Your task to perform on an android device: Open the web browser Image 0: 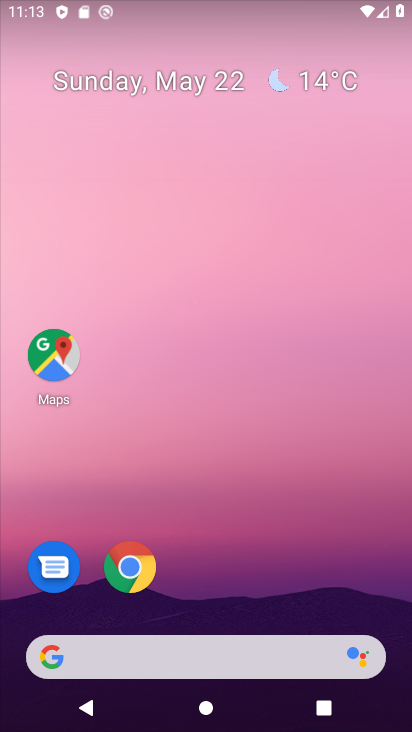
Step 0: click (126, 566)
Your task to perform on an android device: Open the web browser Image 1: 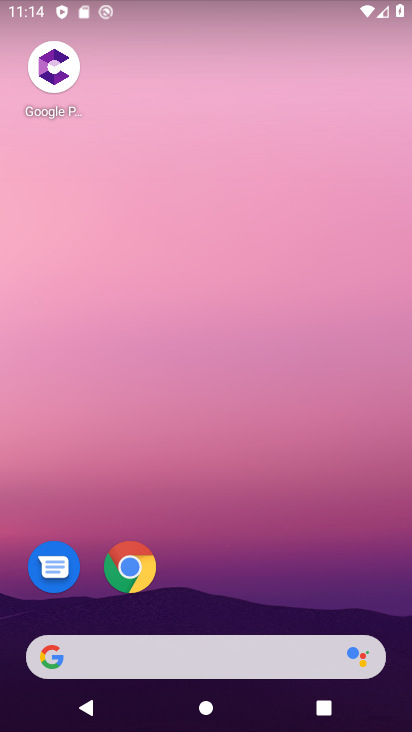
Step 1: click (126, 568)
Your task to perform on an android device: Open the web browser Image 2: 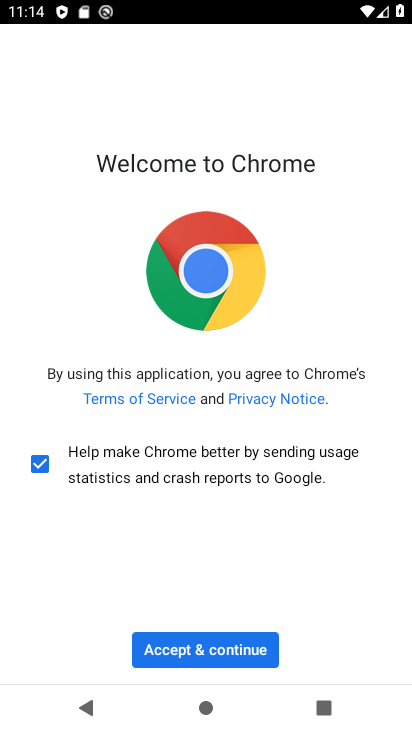
Step 2: click (149, 657)
Your task to perform on an android device: Open the web browser Image 3: 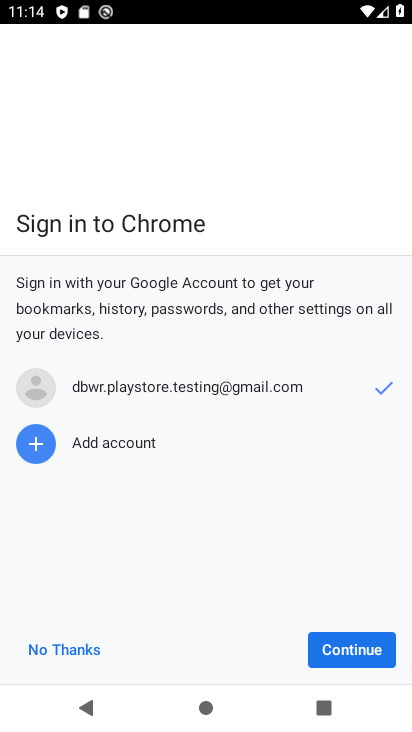
Step 3: click (370, 661)
Your task to perform on an android device: Open the web browser Image 4: 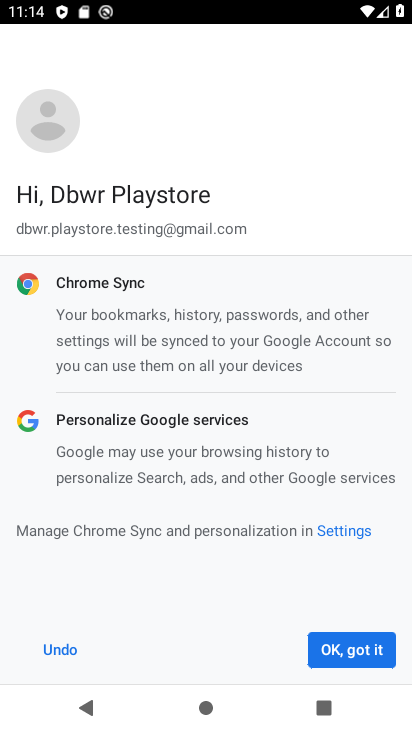
Step 4: click (383, 660)
Your task to perform on an android device: Open the web browser Image 5: 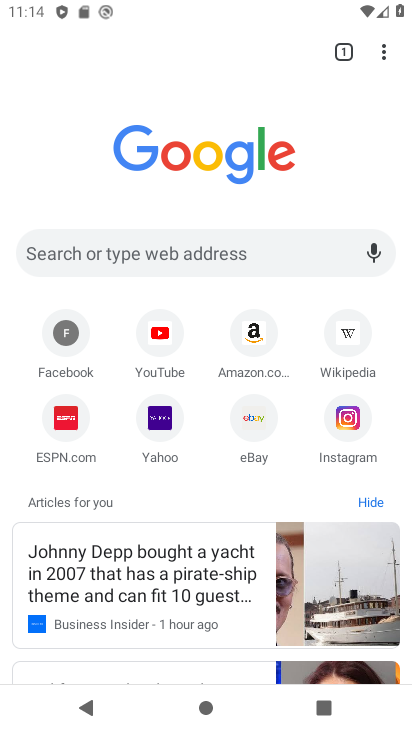
Step 5: click (175, 264)
Your task to perform on an android device: Open the web browser Image 6: 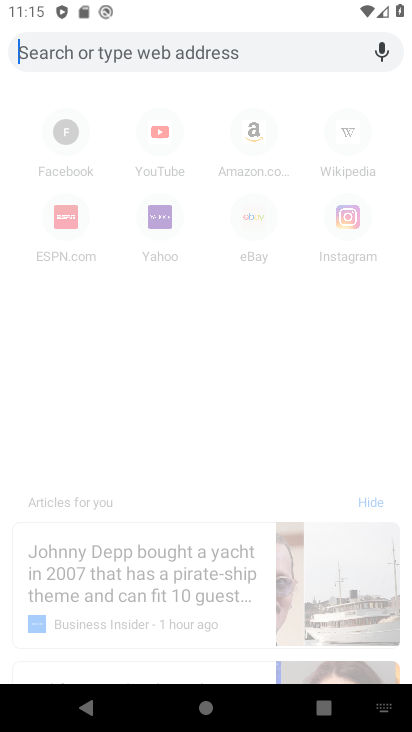
Step 6: task complete